Your task to perform on an android device: change the clock display to digital Image 0: 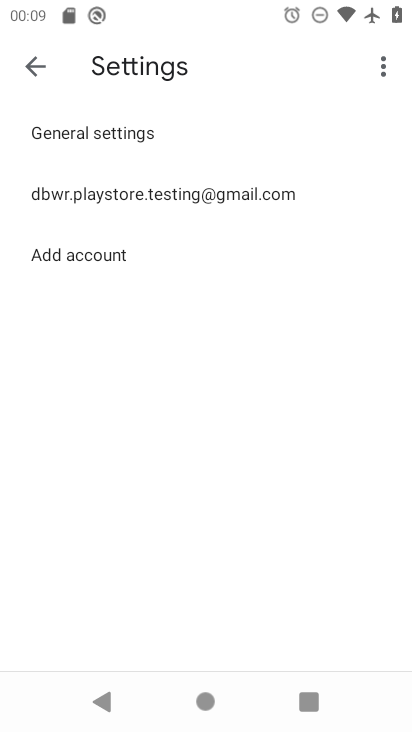
Step 0: press home button
Your task to perform on an android device: change the clock display to digital Image 1: 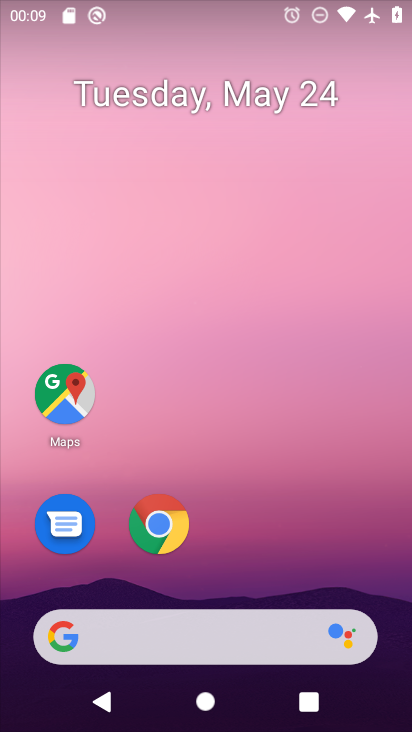
Step 1: drag from (240, 585) to (243, 131)
Your task to perform on an android device: change the clock display to digital Image 2: 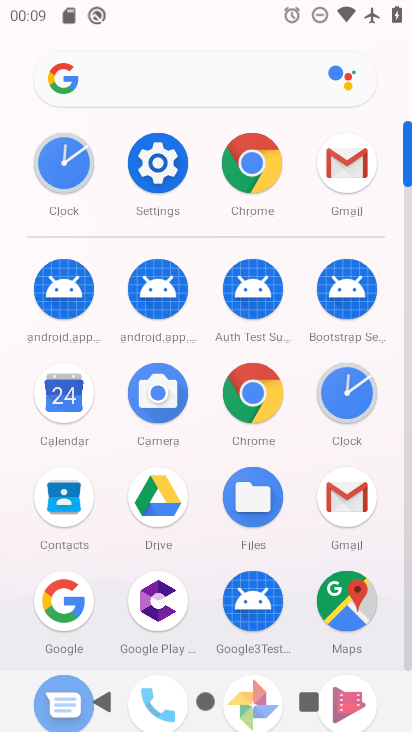
Step 2: click (331, 389)
Your task to perform on an android device: change the clock display to digital Image 3: 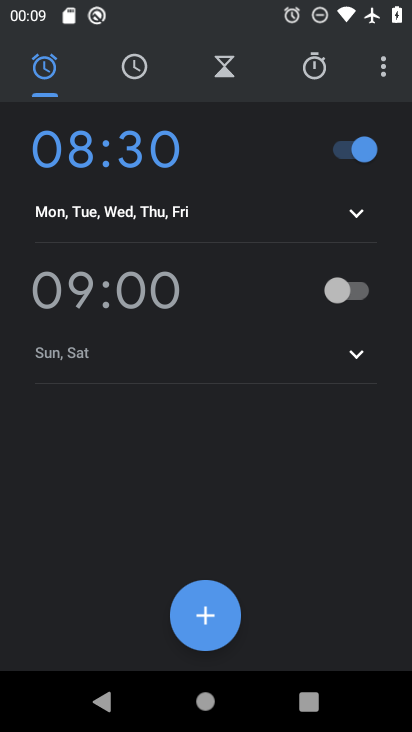
Step 3: click (382, 71)
Your task to perform on an android device: change the clock display to digital Image 4: 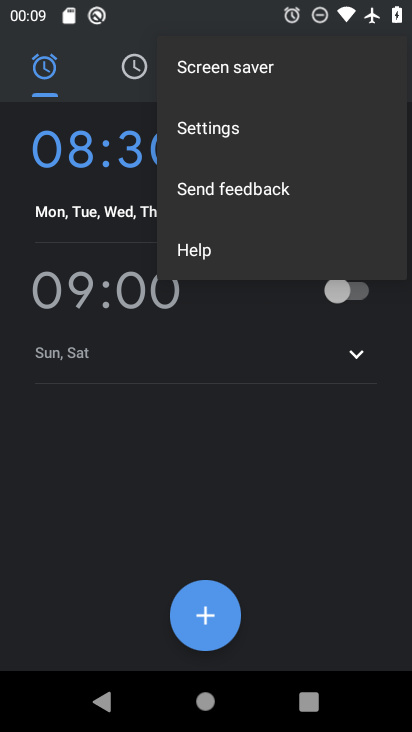
Step 4: click (197, 139)
Your task to perform on an android device: change the clock display to digital Image 5: 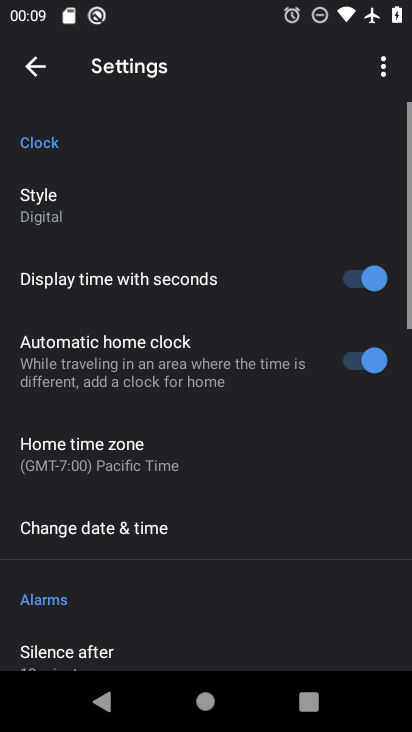
Step 5: click (114, 200)
Your task to perform on an android device: change the clock display to digital Image 6: 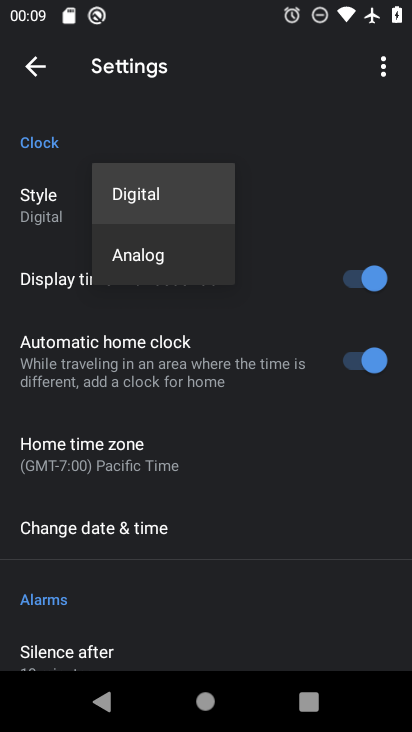
Step 6: task complete